Your task to perform on an android device: change the clock display to analog Image 0: 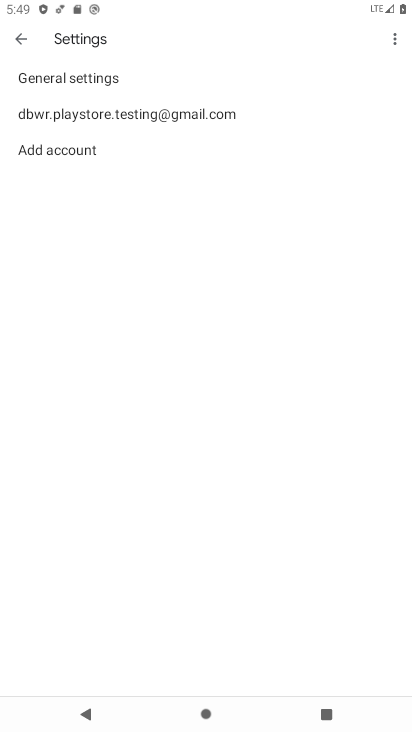
Step 0: press home button
Your task to perform on an android device: change the clock display to analog Image 1: 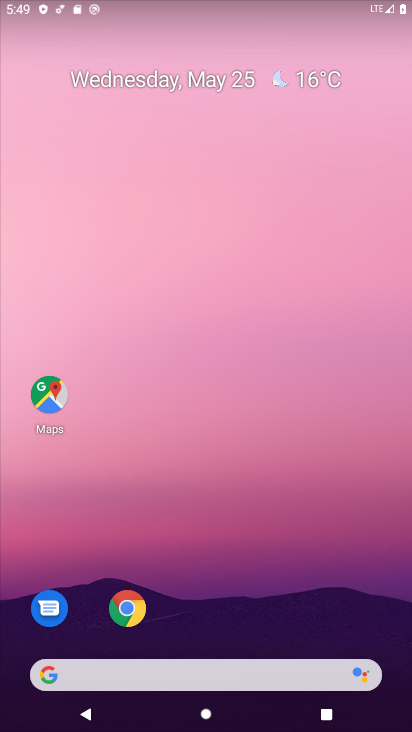
Step 1: drag from (299, 638) to (314, 15)
Your task to perform on an android device: change the clock display to analog Image 2: 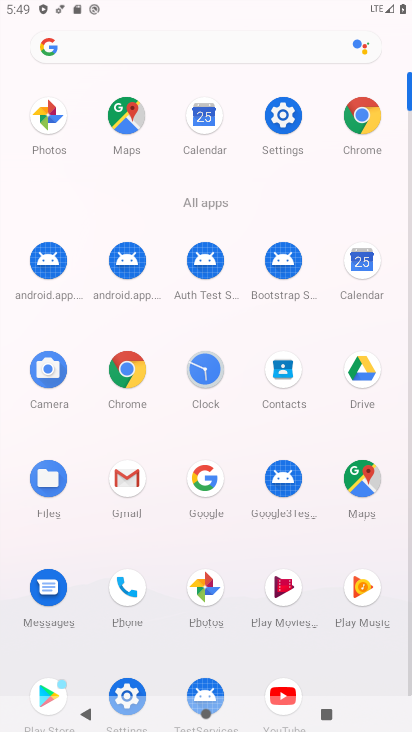
Step 2: click (211, 373)
Your task to perform on an android device: change the clock display to analog Image 3: 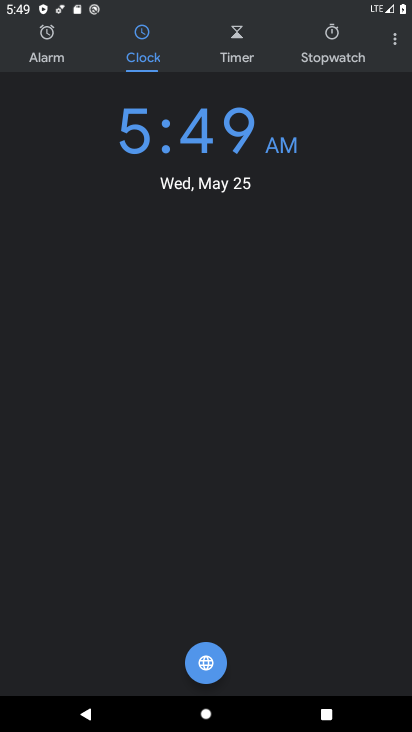
Step 3: click (391, 38)
Your task to perform on an android device: change the clock display to analog Image 4: 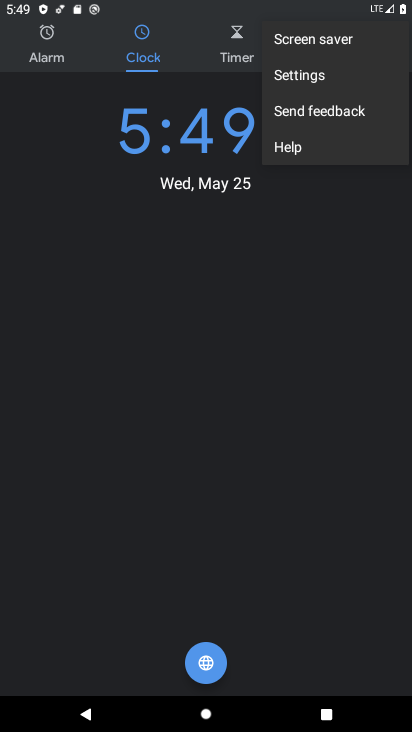
Step 4: click (339, 76)
Your task to perform on an android device: change the clock display to analog Image 5: 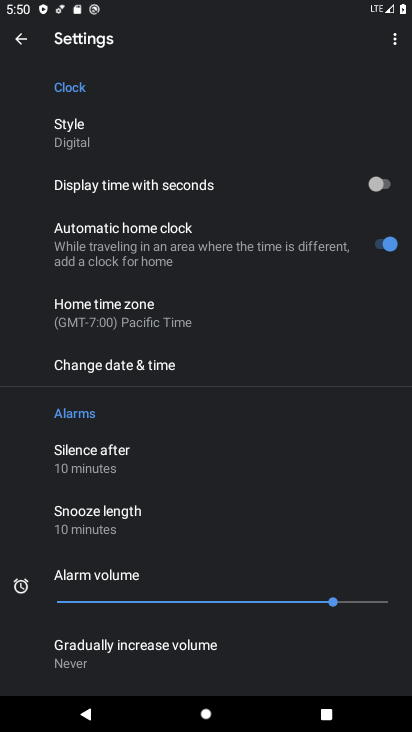
Step 5: click (126, 144)
Your task to perform on an android device: change the clock display to analog Image 6: 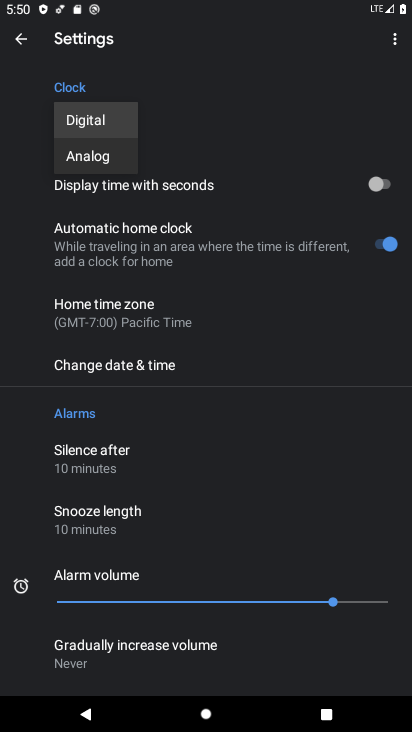
Step 6: click (114, 159)
Your task to perform on an android device: change the clock display to analog Image 7: 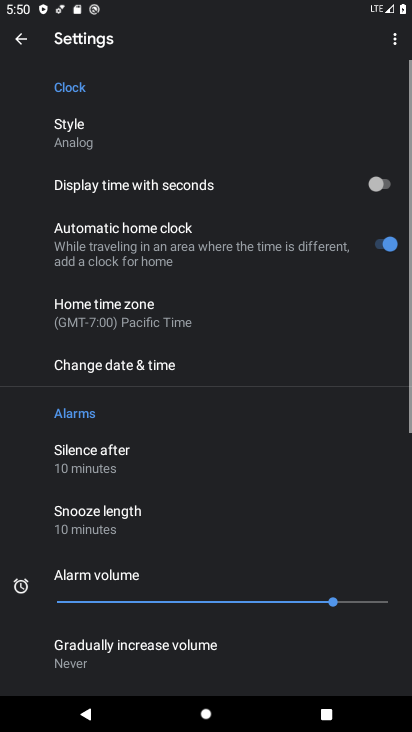
Step 7: task complete